Your task to perform on an android device: Open Google Chrome and open the bookmarks view Image 0: 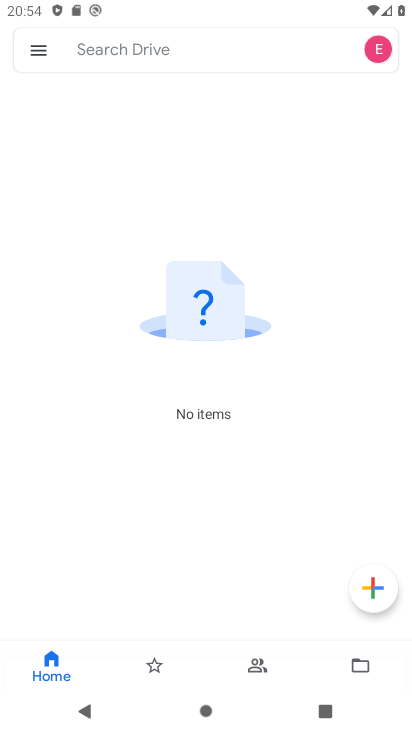
Step 0: press home button
Your task to perform on an android device: Open Google Chrome and open the bookmarks view Image 1: 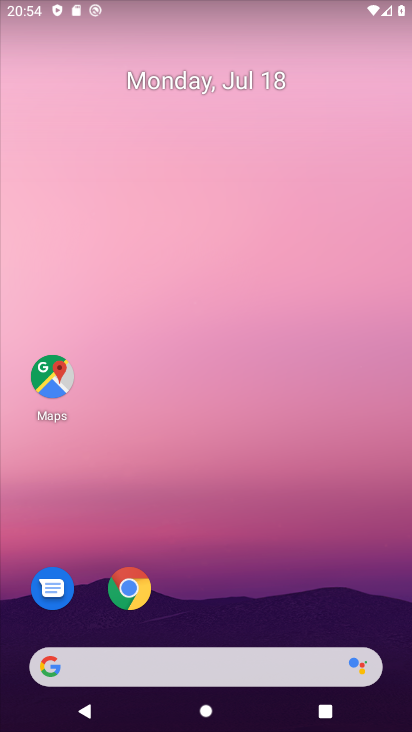
Step 1: drag from (243, 606) to (289, 177)
Your task to perform on an android device: Open Google Chrome and open the bookmarks view Image 2: 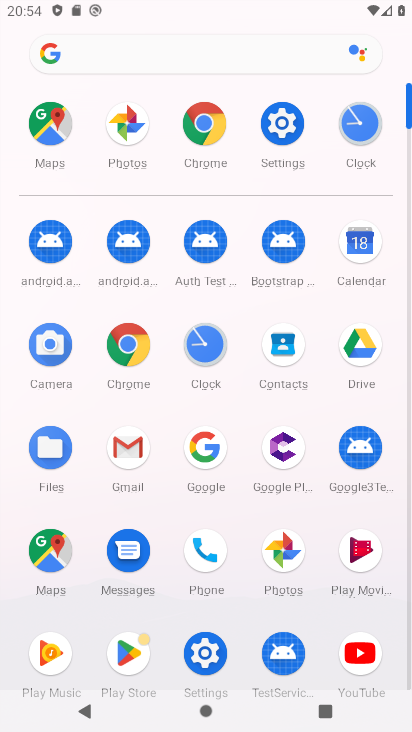
Step 2: click (212, 144)
Your task to perform on an android device: Open Google Chrome and open the bookmarks view Image 3: 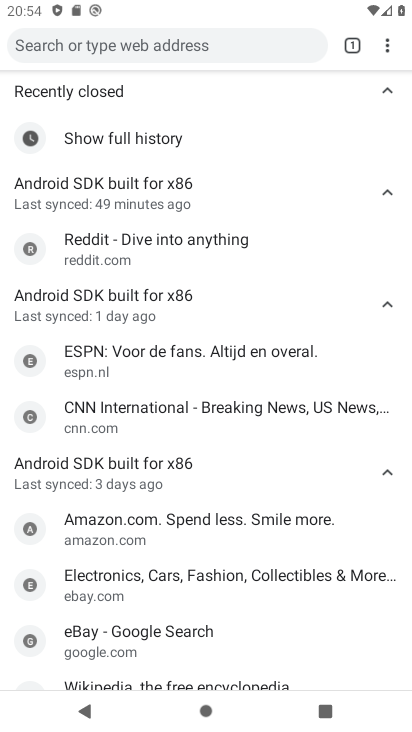
Step 3: task complete